Your task to perform on an android device: check android version Image 0: 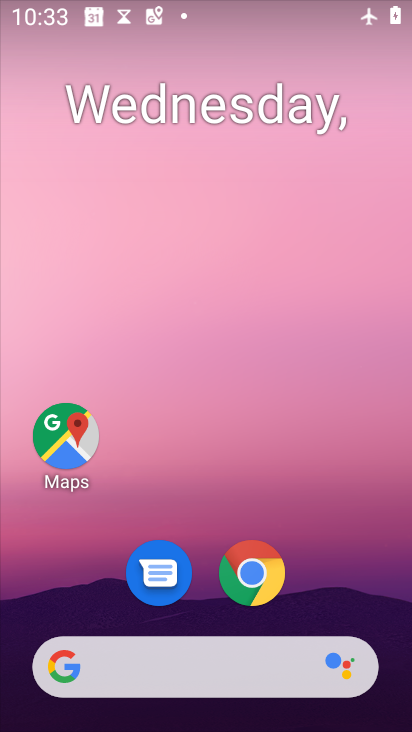
Step 0: drag from (313, 583) to (240, 267)
Your task to perform on an android device: check android version Image 1: 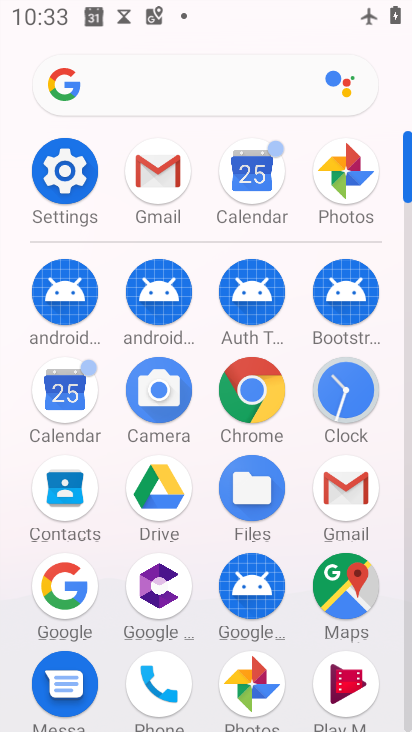
Step 1: click (57, 177)
Your task to perform on an android device: check android version Image 2: 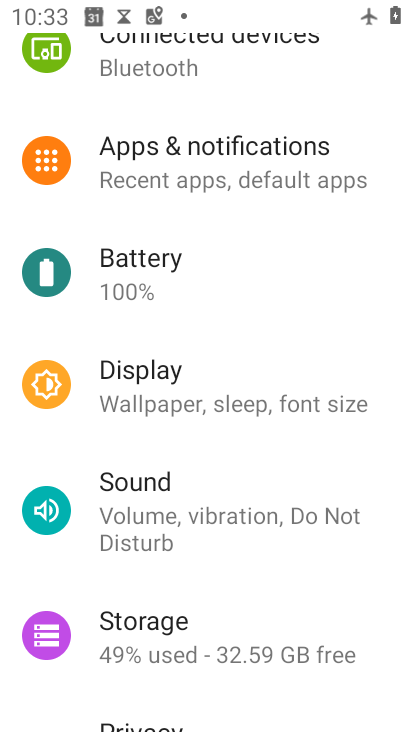
Step 2: drag from (258, 621) to (231, 268)
Your task to perform on an android device: check android version Image 3: 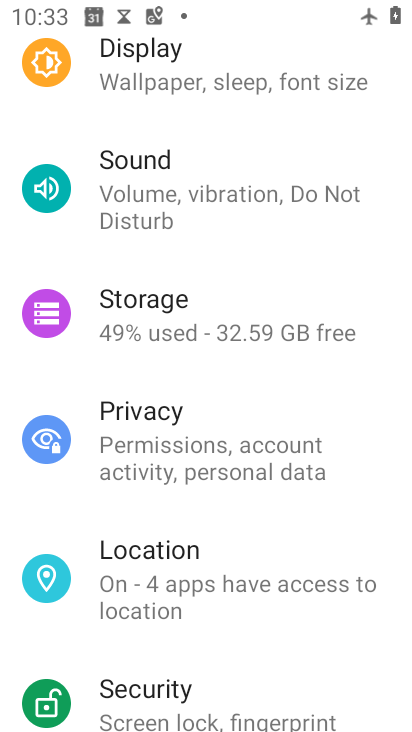
Step 3: drag from (236, 666) to (220, 249)
Your task to perform on an android device: check android version Image 4: 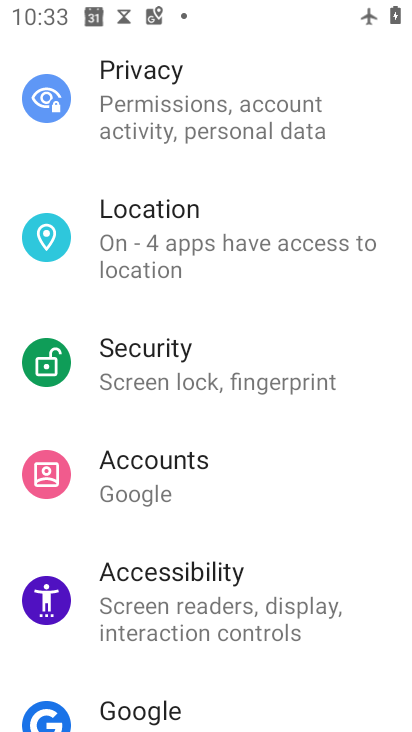
Step 4: drag from (230, 641) to (212, 258)
Your task to perform on an android device: check android version Image 5: 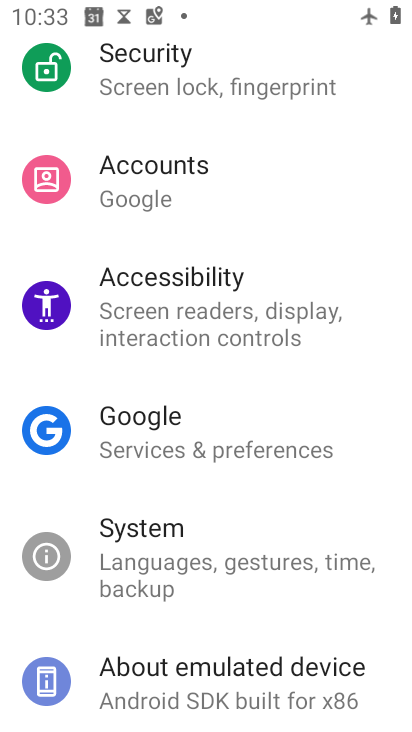
Step 5: drag from (244, 702) to (210, 440)
Your task to perform on an android device: check android version Image 6: 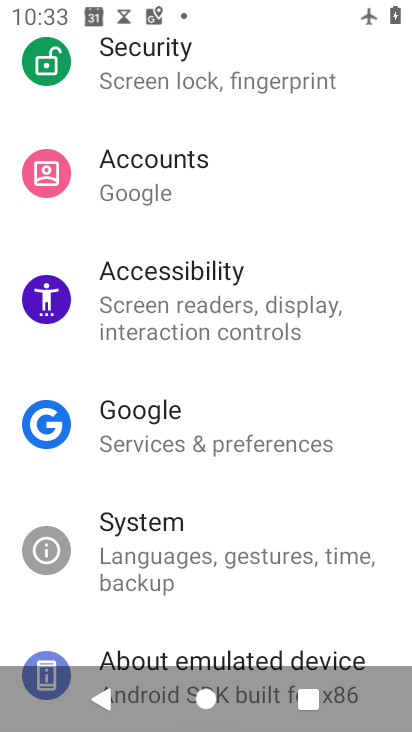
Step 6: click (204, 701)
Your task to perform on an android device: check android version Image 7: 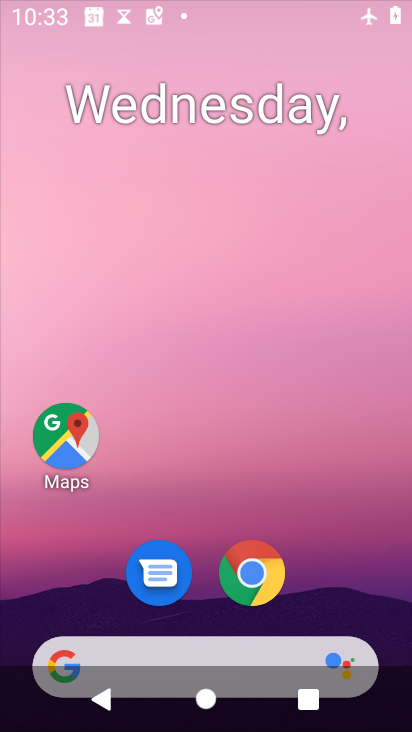
Step 7: drag from (211, 447) to (205, 277)
Your task to perform on an android device: check android version Image 8: 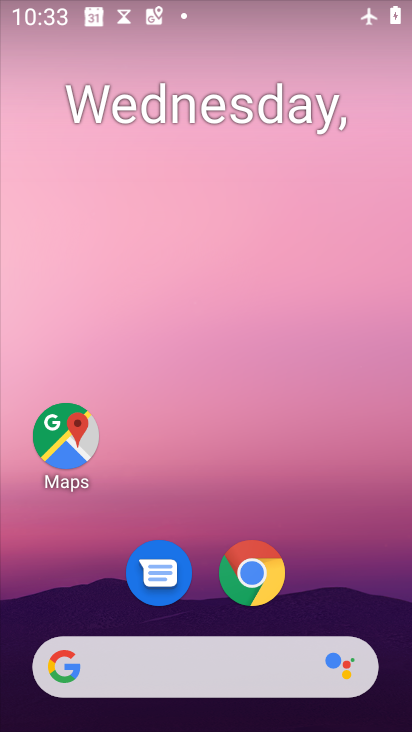
Step 8: drag from (297, 428) to (232, 135)
Your task to perform on an android device: check android version Image 9: 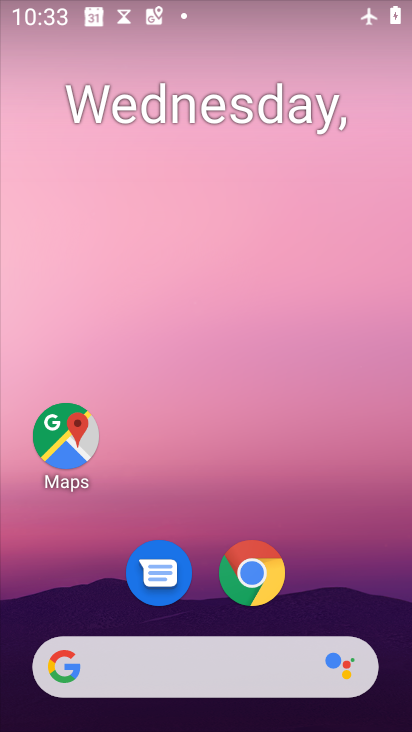
Step 9: drag from (329, 562) to (235, 80)
Your task to perform on an android device: check android version Image 10: 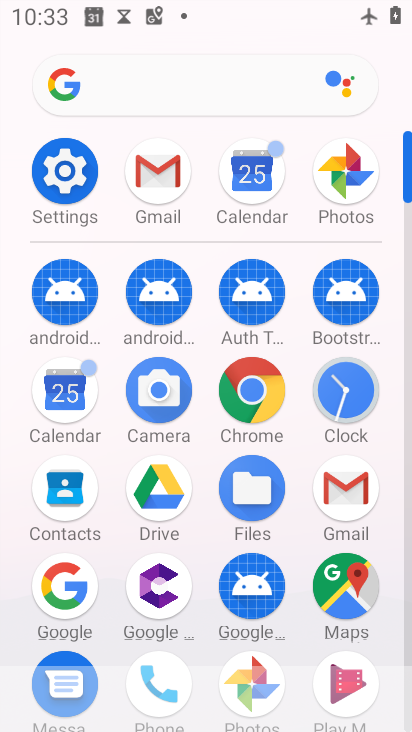
Step 10: click (62, 160)
Your task to perform on an android device: check android version Image 11: 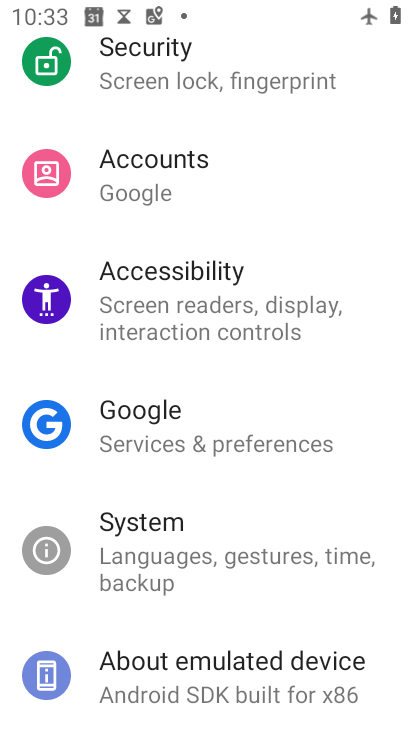
Step 11: click (260, 669)
Your task to perform on an android device: check android version Image 12: 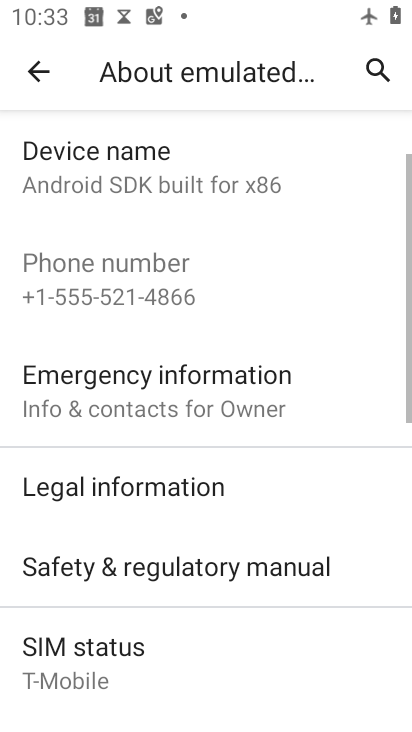
Step 12: drag from (248, 529) to (242, 138)
Your task to perform on an android device: check android version Image 13: 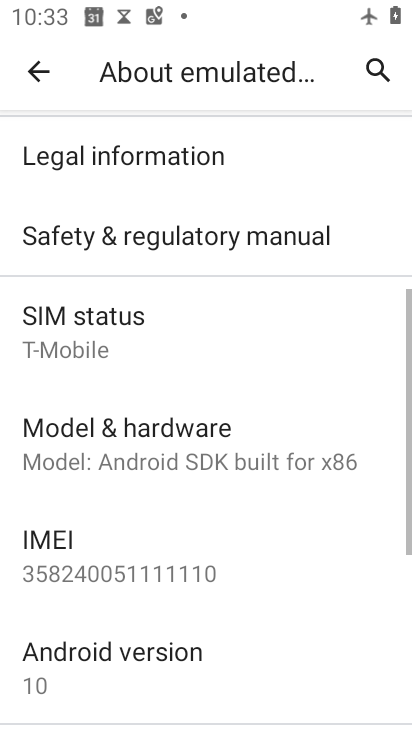
Step 13: click (152, 657)
Your task to perform on an android device: check android version Image 14: 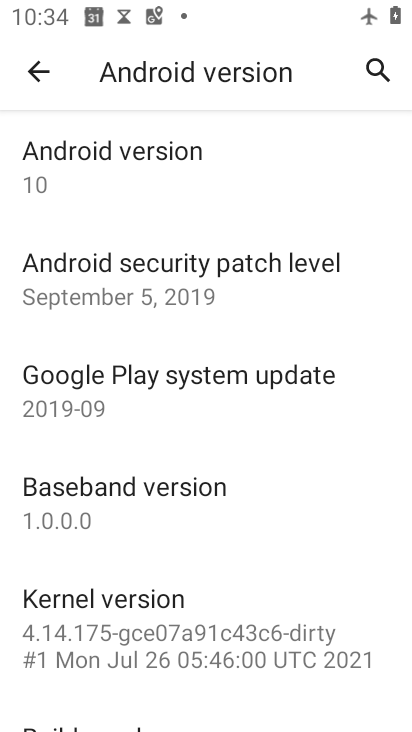
Step 14: task complete